Your task to perform on an android device: Open Yahoo.com Image 0: 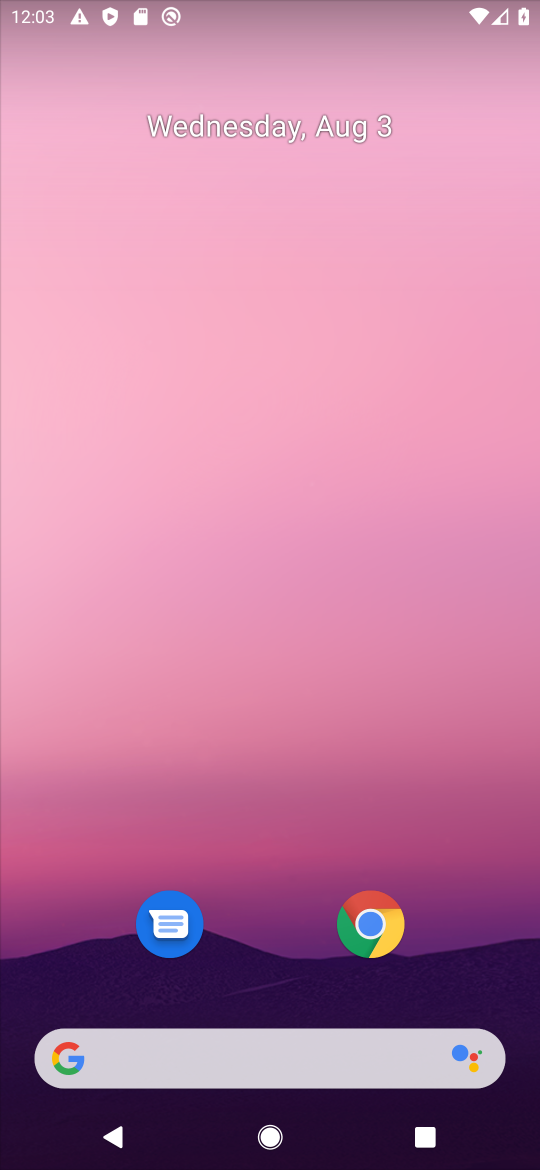
Step 0: click (373, 902)
Your task to perform on an android device: Open Yahoo.com Image 1: 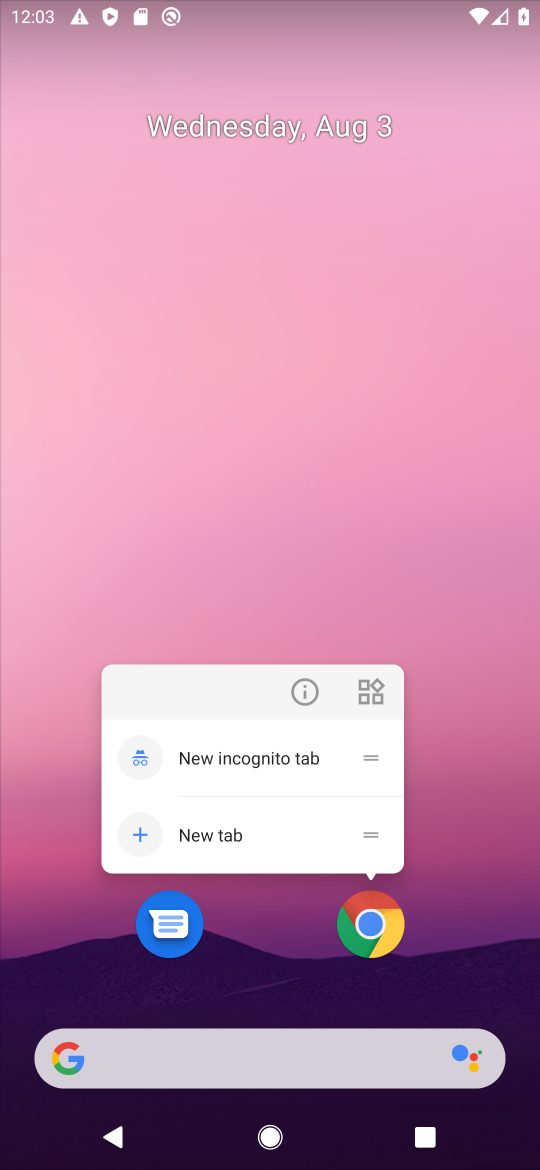
Step 1: click (379, 928)
Your task to perform on an android device: Open Yahoo.com Image 2: 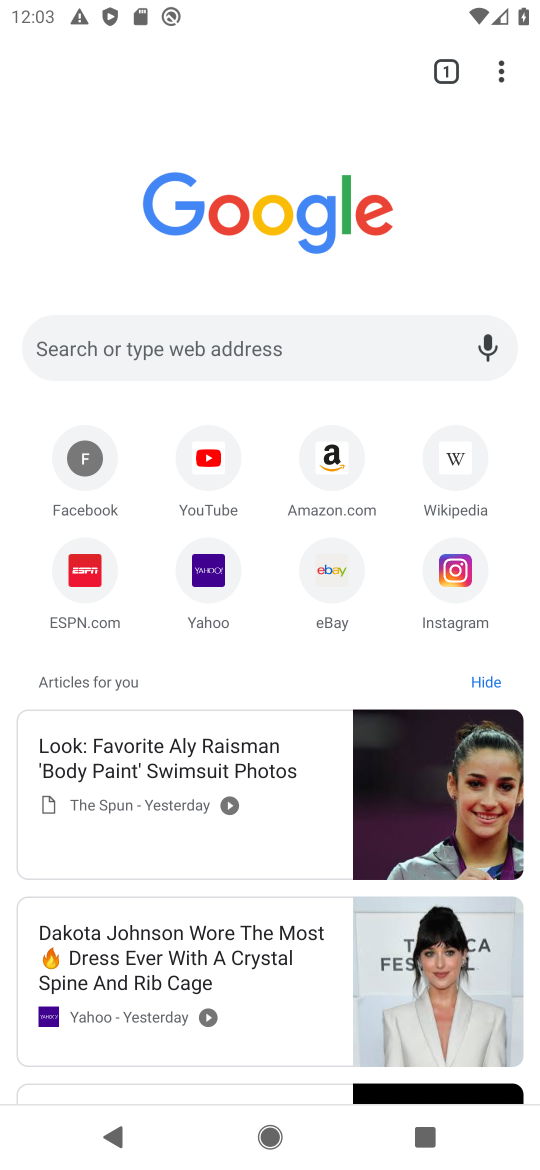
Step 2: click (201, 575)
Your task to perform on an android device: Open Yahoo.com Image 3: 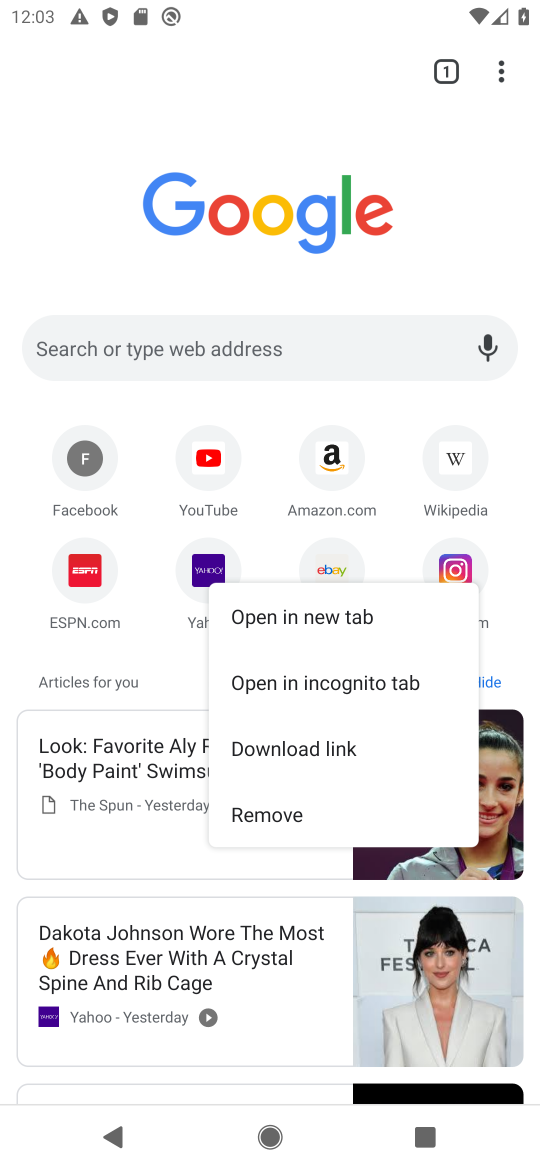
Step 3: click (212, 568)
Your task to perform on an android device: Open Yahoo.com Image 4: 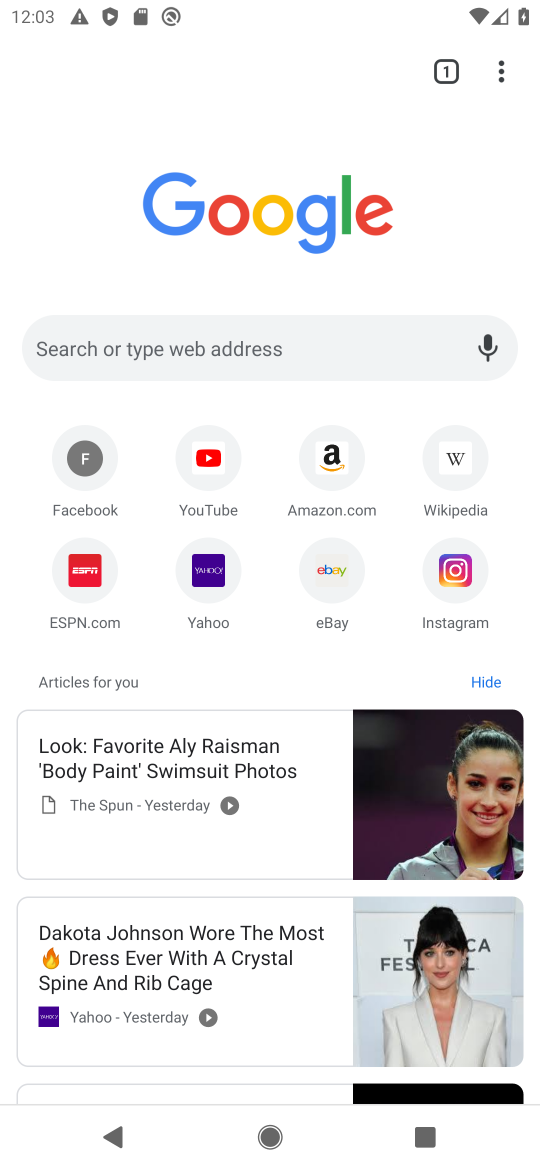
Step 4: click (213, 565)
Your task to perform on an android device: Open Yahoo.com Image 5: 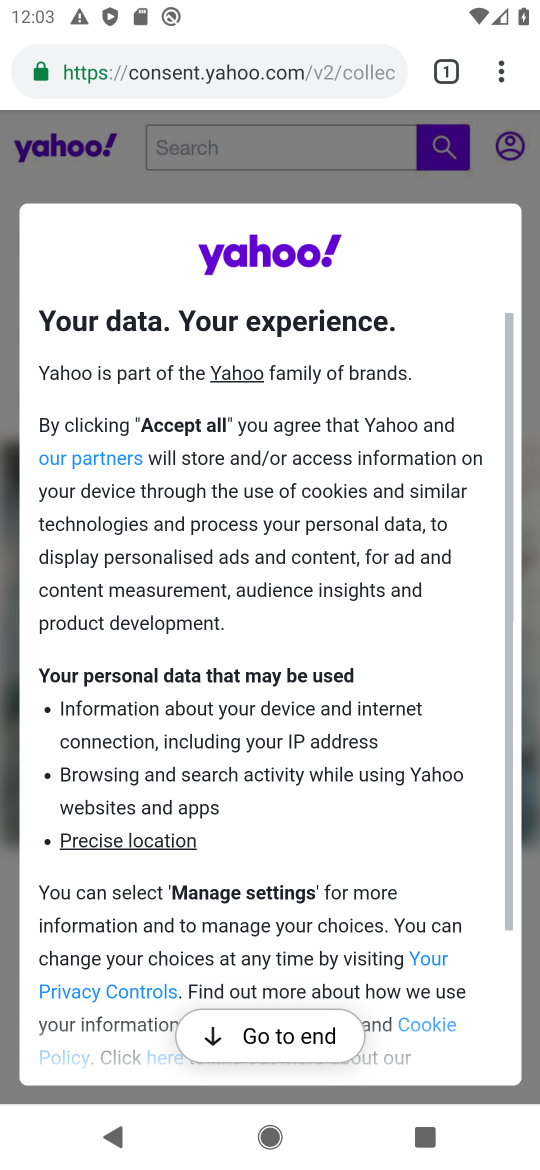
Step 5: task complete